Your task to perform on an android device: open wifi settings Image 0: 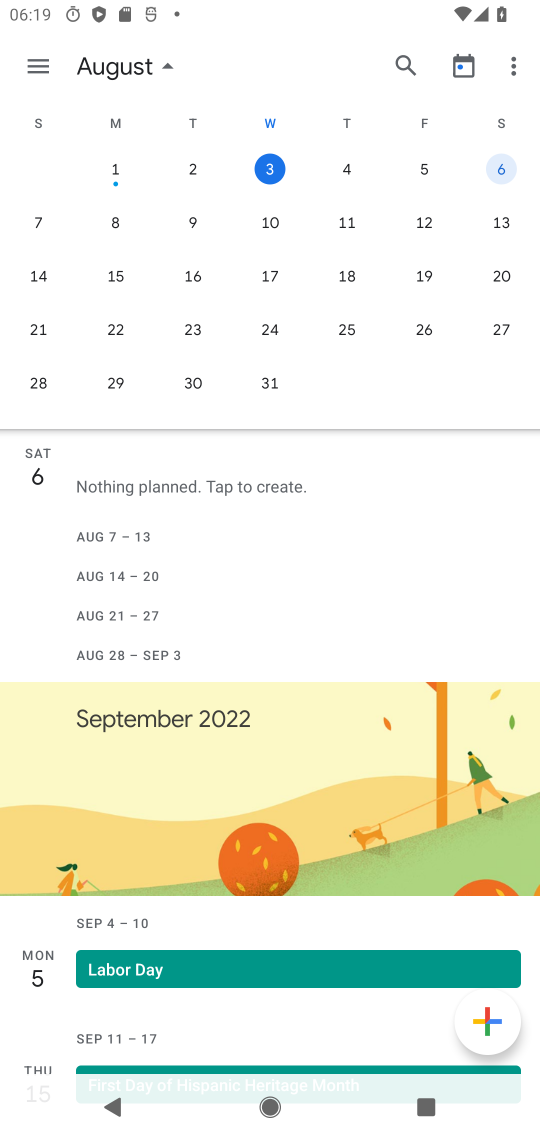
Step 0: press home button
Your task to perform on an android device: open wifi settings Image 1: 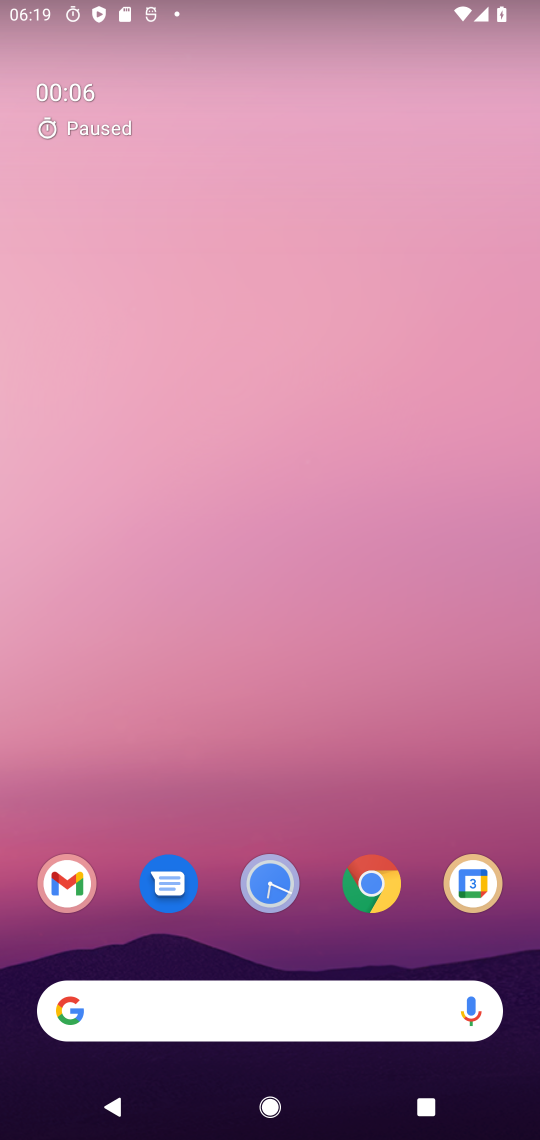
Step 1: drag from (230, 962) to (107, 262)
Your task to perform on an android device: open wifi settings Image 2: 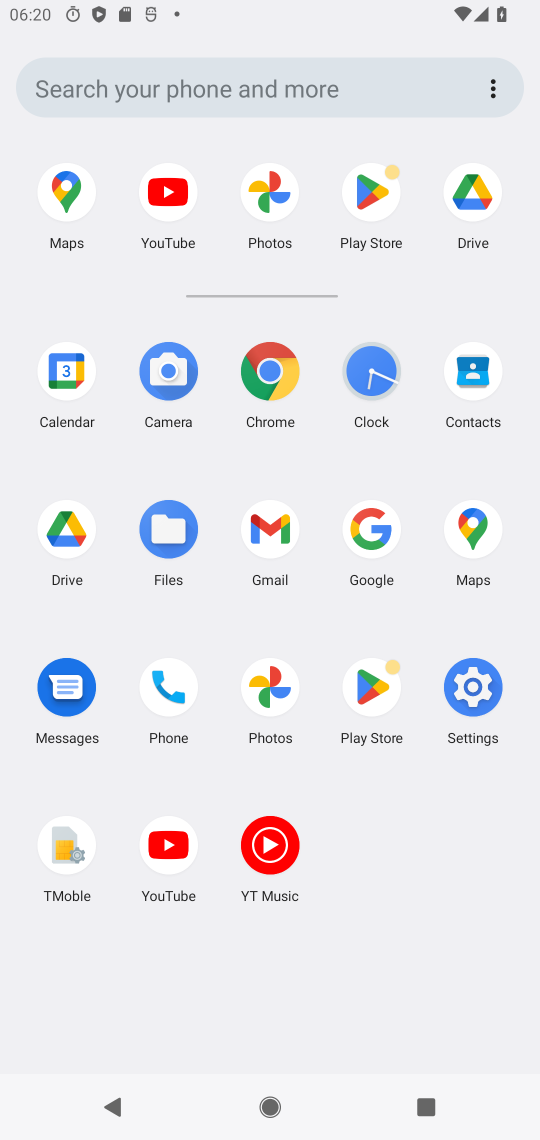
Step 2: click (482, 702)
Your task to perform on an android device: open wifi settings Image 3: 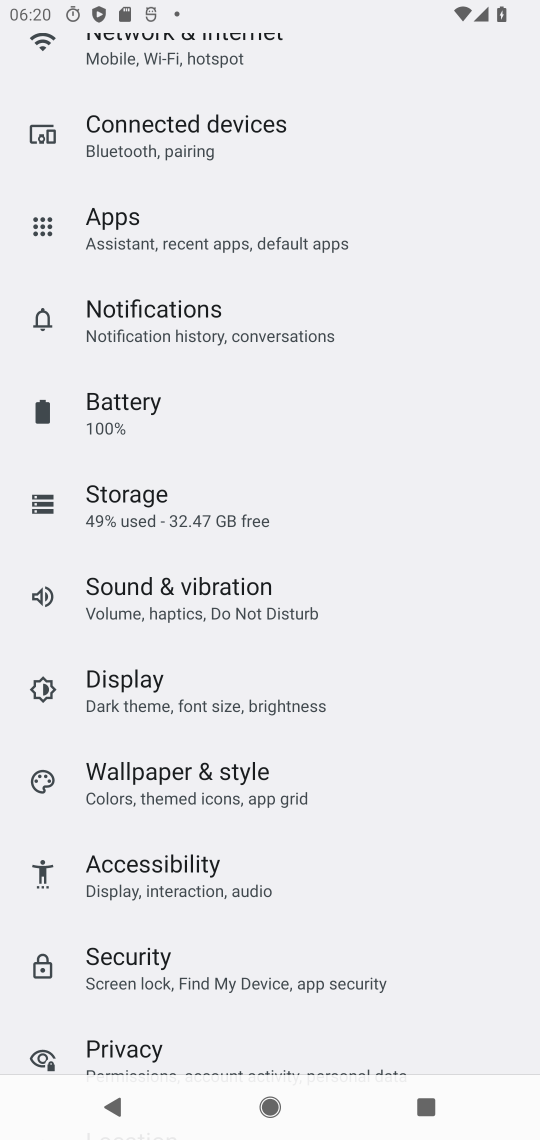
Step 3: click (121, 49)
Your task to perform on an android device: open wifi settings Image 4: 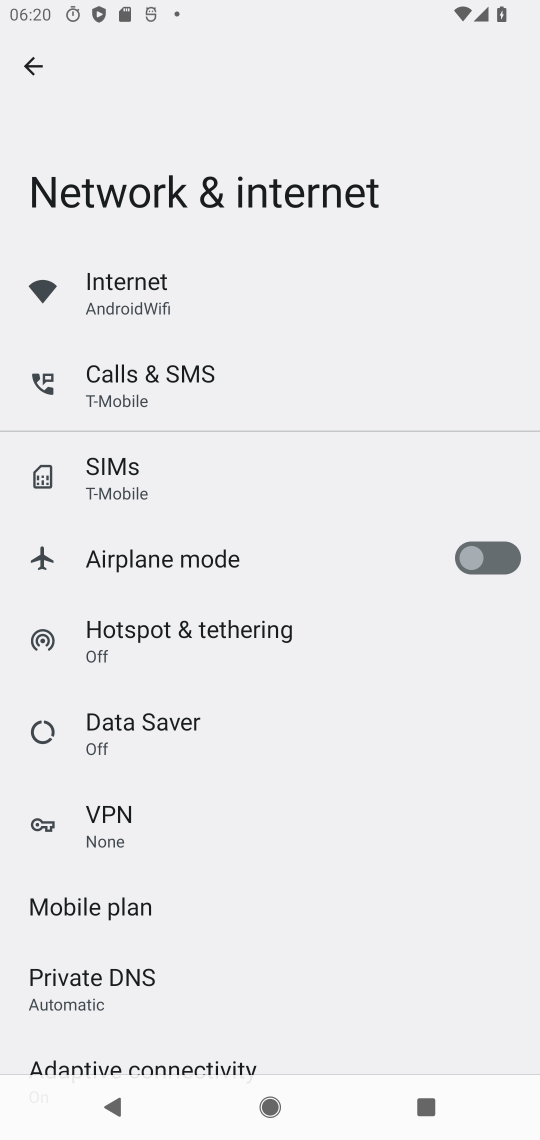
Step 4: click (140, 292)
Your task to perform on an android device: open wifi settings Image 5: 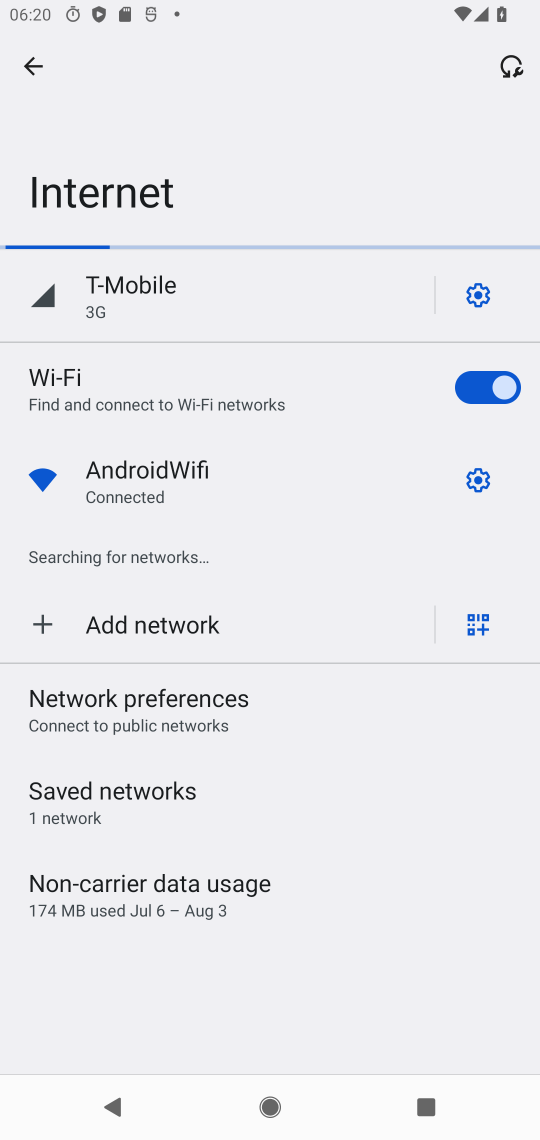
Step 5: click (477, 294)
Your task to perform on an android device: open wifi settings Image 6: 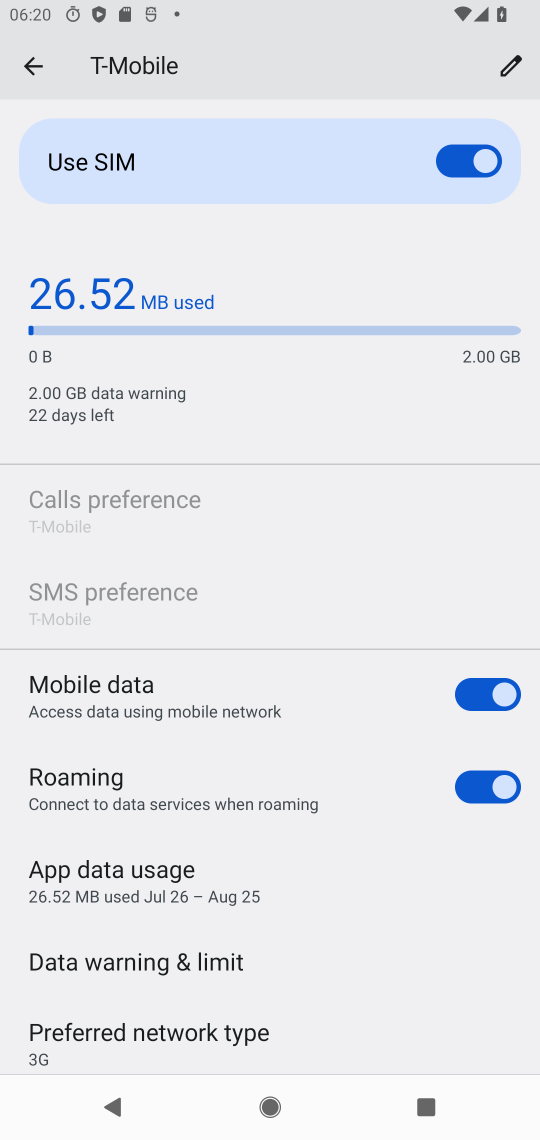
Step 6: task complete